Your task to perform on an android device: check the backup settings in the google photos Image 0: 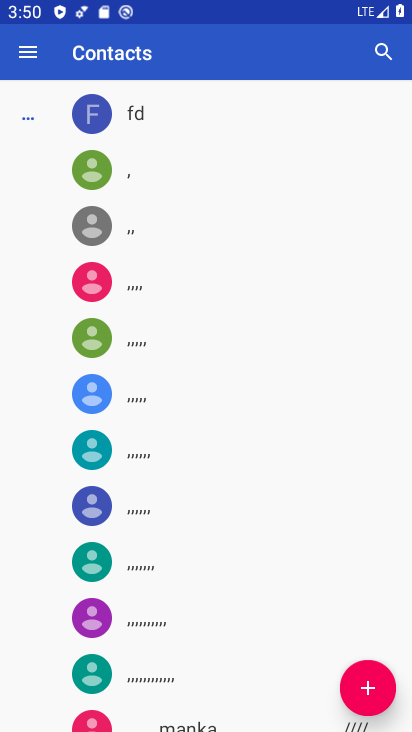
Step 0: press home button
Your task to perform on an android device: check the backup settings in the google photos Image 1: 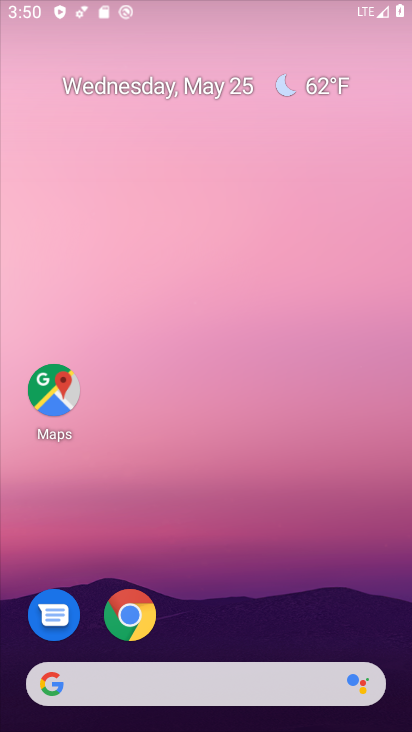
Step 1: drag from (335, 512) to (173, 21)
Your task to perform on an android device: check the backup settings in the google photos Image 2: 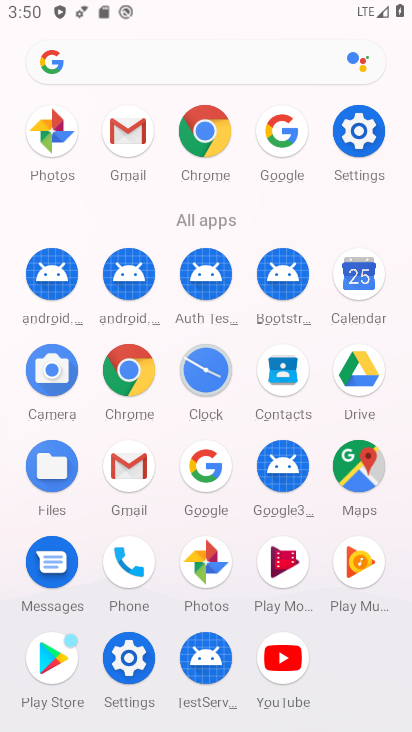
Step 2: click (193, 573)
Your task to perform on an android device: check the backup settings in the google photos Image 3: 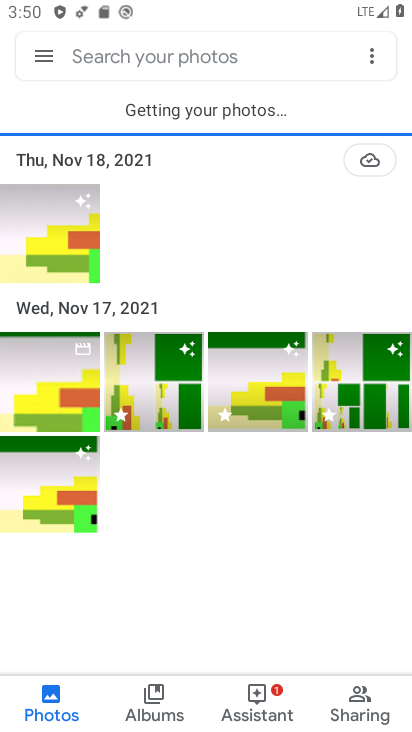
Step 3: click (32, 58)
Your task to perform on an android device: check the backup settings in the google photos Image 4: 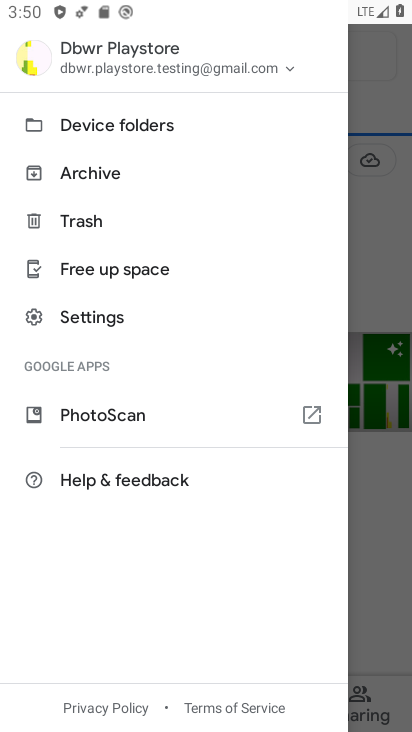
Step 4: click (148, 301)
Your task to perform on an android device: check the backup settings in the google photos Image 5: 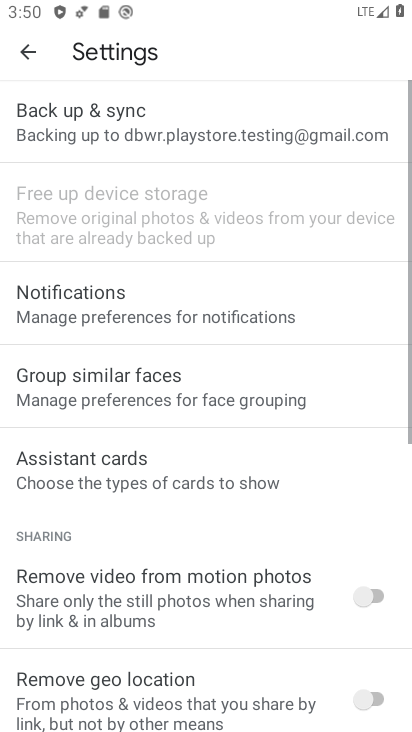
Step 5: click (154, 125)
Your task to perform on an android device: check the backup settings in the google photos Image 6: 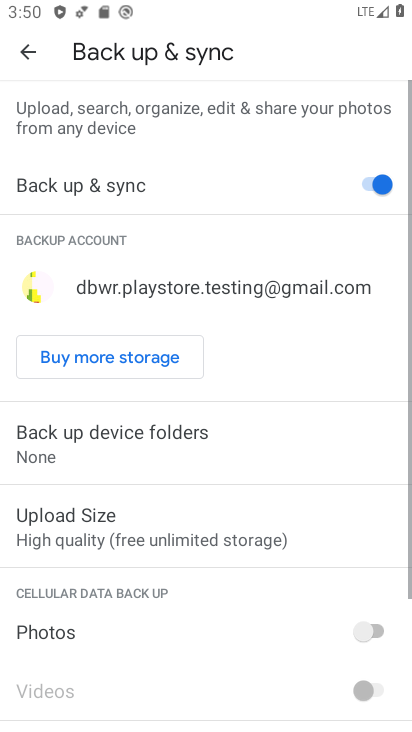
Step 6: task complete